Your task to perform on an android device: choose inbox layout in the gmail app Image 0: 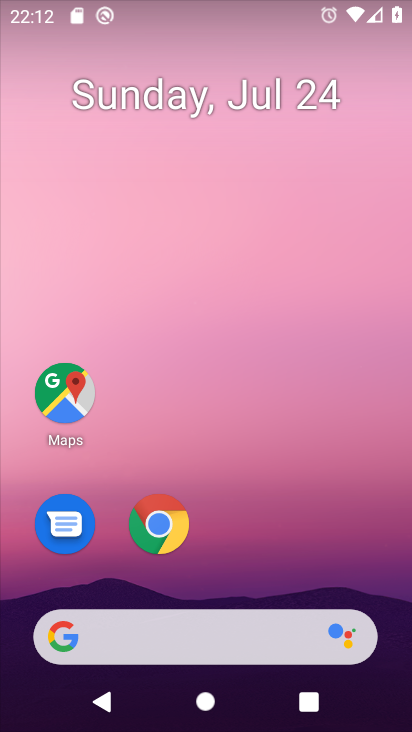
Step 0: drag from (272, 525) to (262, 8)
Your task to perform on an android device: choose inbox layout in the gmail app Image 1: 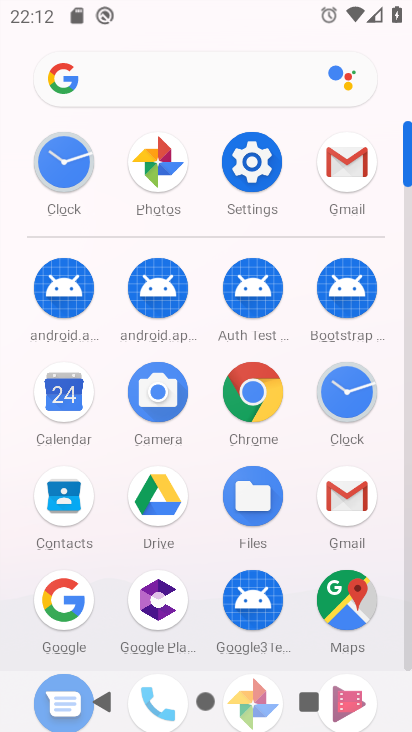
Step 1: click (339, 165)
Your task to perform on an android device: choose inbox layout in the gmail app Image 2: 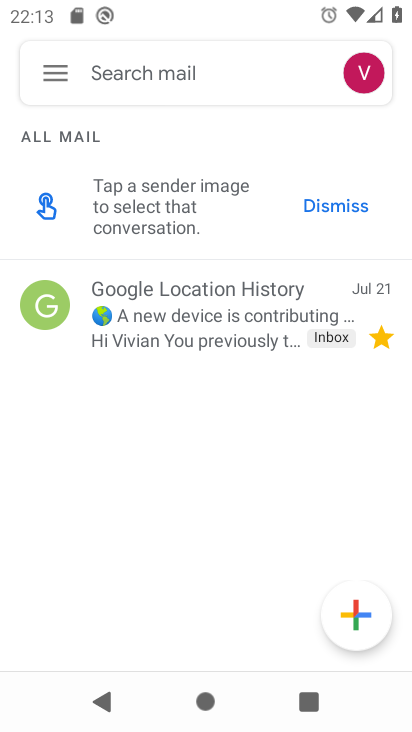
Step 2: click (55, 71)
Your task to perform on an android device: choose inbox layout in the gmail app Image 3: 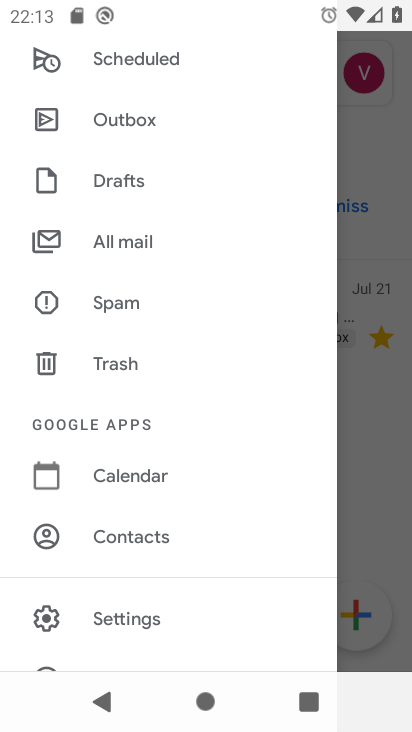
Step 3: click (140, 617)
Your task to perform on an android device: choose inbox layout in the gmail app Image 4: 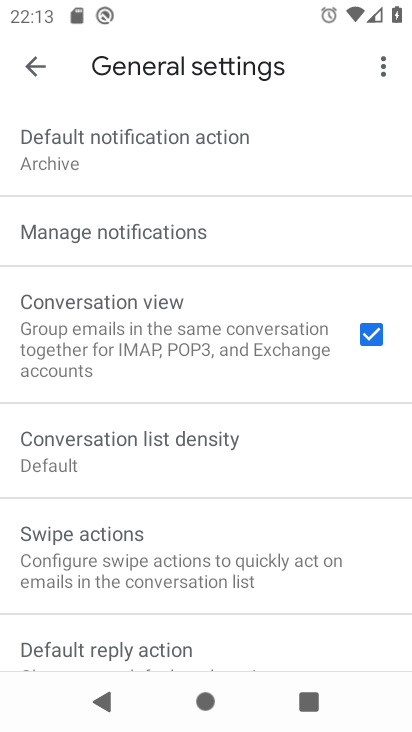
Step 4: click (34, 65)
Your task to perform on an android device: choose inbox layout in the gmail app Image 5: 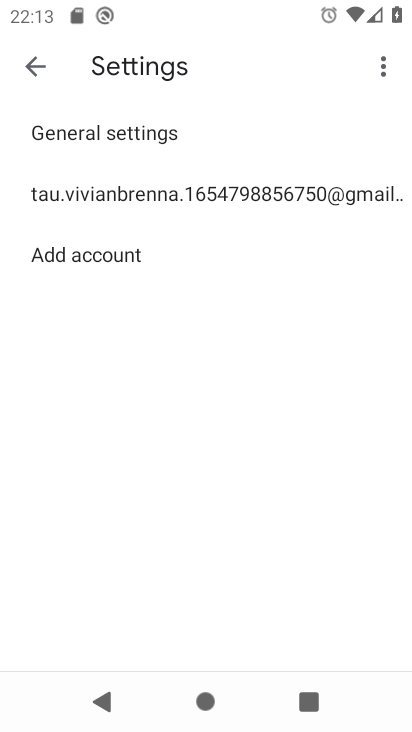
Step 5: click (75, 183)
Your task to perform on an android device: choose inbox layout in the gmail app Image 6: 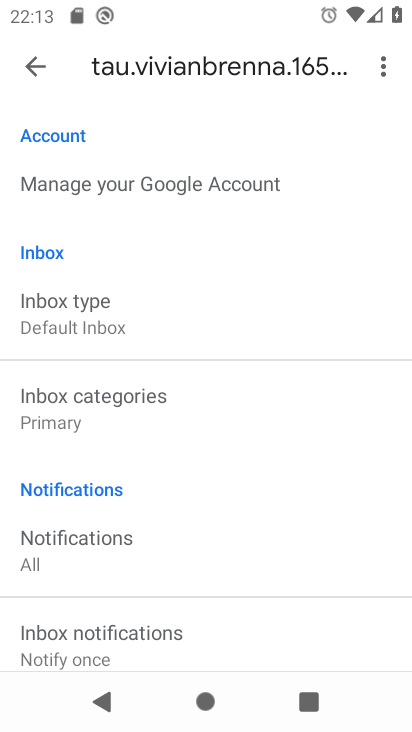
Step 6: click (97, 306)
Your task to perform on an android device: choose inbox layout in the gmail app Image 7: 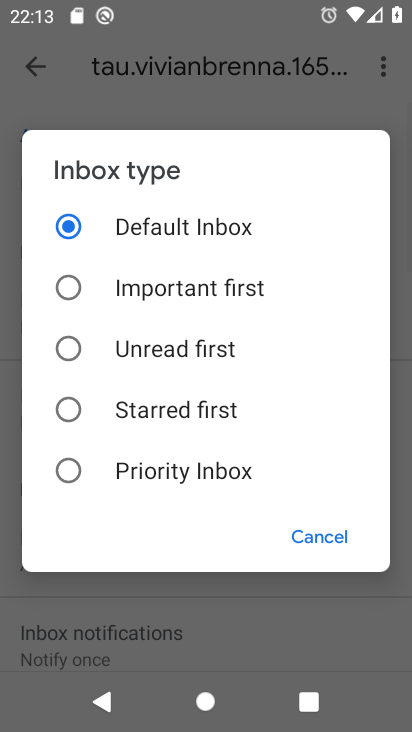
Step 7: click (106, 293)
Your task to perform on an android device: choose inbox layout in the gmail app Image 8: 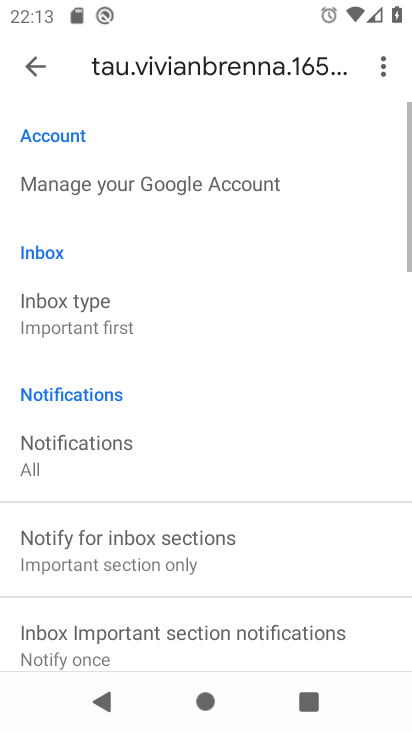
Step 8: task complete